Your task to perform on an android device: What is the recent news? Image 0: 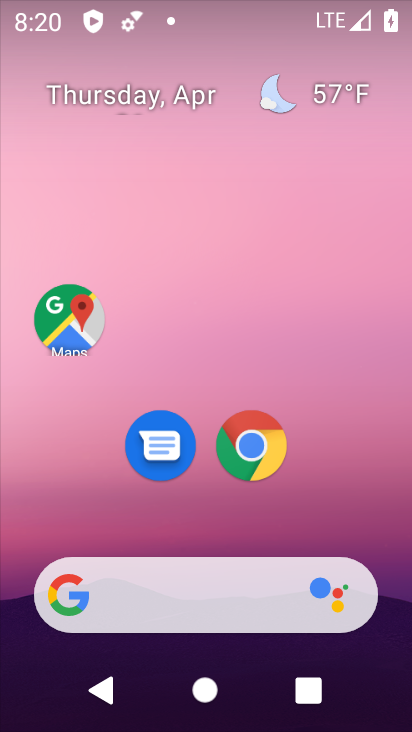
Step 0: drag from (28, 267) to (398, 439)
Your task to perform on an android device: What is the recent news? Image 1: 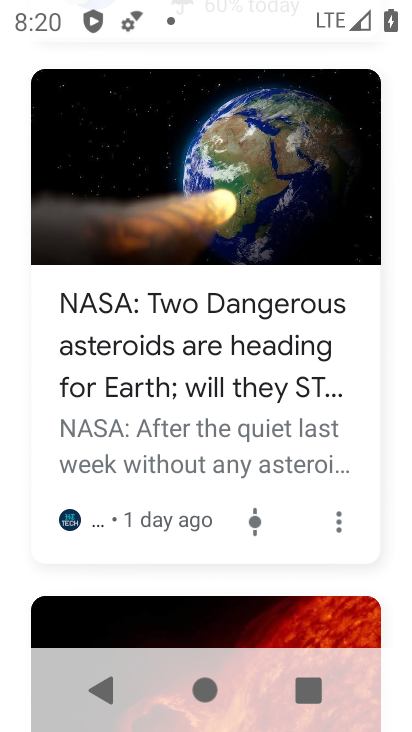
Step 1: task complete